Your task to perform on an android device: Go to CNN.com Image 0: 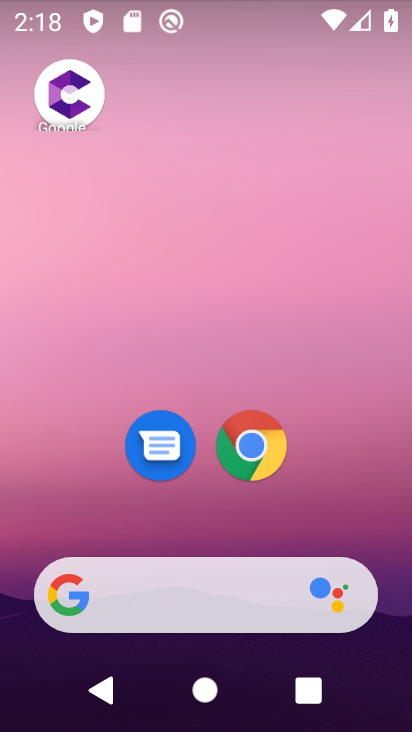
Step 0: click (148, 595)
Your task to perform on an android device: Go to CNN.com Image 1: 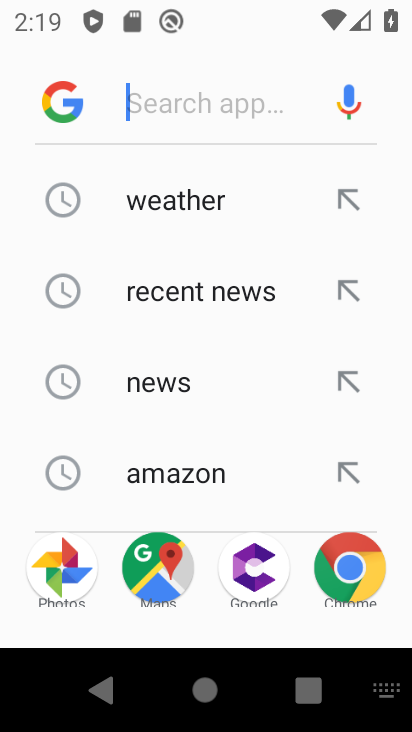
Step 1: type "CNN.com"
Your task to perform on an android device: Go to CNN.com Image 2: 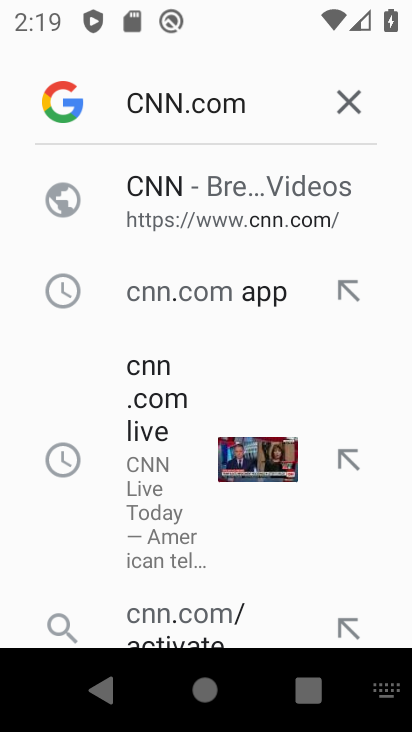
Step 2: click (211, 188)
Your task to perform on an android device: Go to CNN.com Image 3: 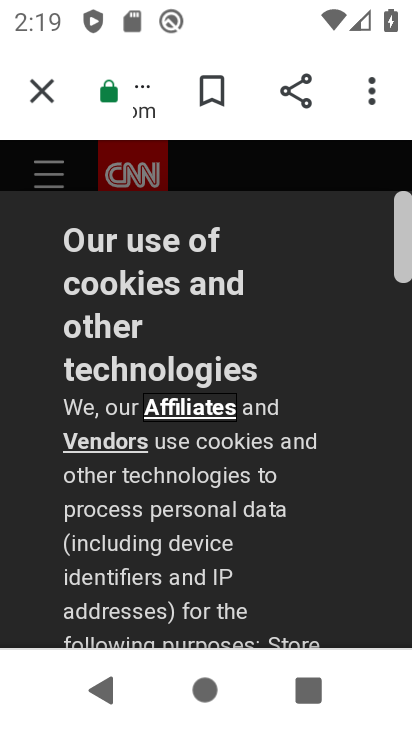
Step 3: drag from (215, 484) to (309, 156)
Your task to perform on an android device: Go to CNN.com Image 4: 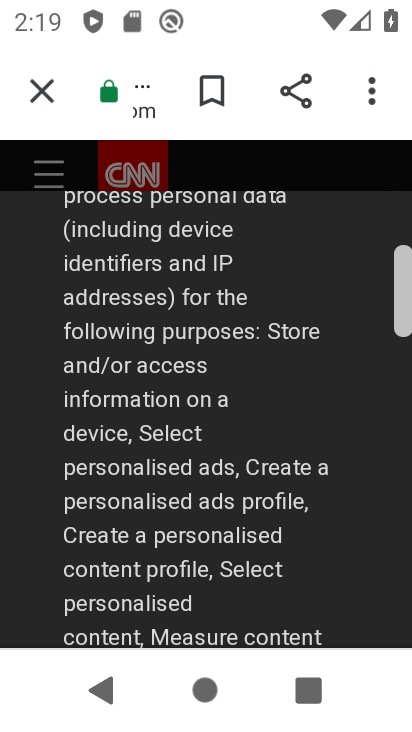
Step 4: drag from (199, 552) to (295, 216)
Your task to perform on an android device: Go to CNN.com Image 5: 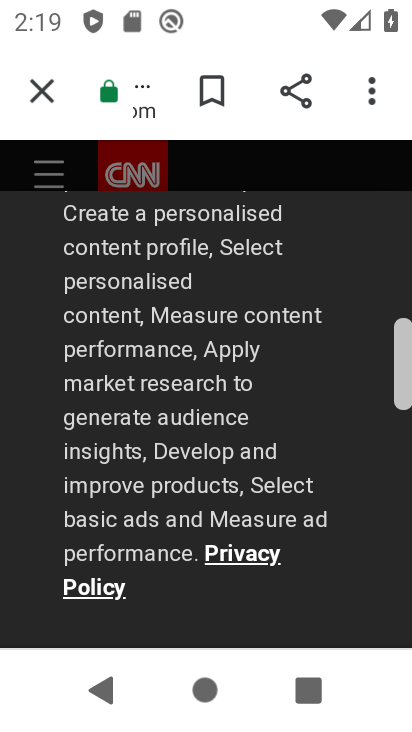
Step 5: click (319, 260)
Your task to perform on an android device: Go to CNN.com Image 6: 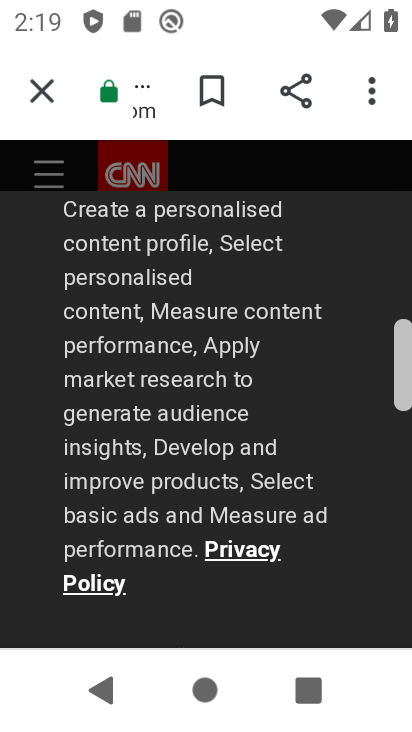
Step 6: drag from (365, 270) to (400, 160)
Your task to perform on an android device: Go to CNN.com Image 7: 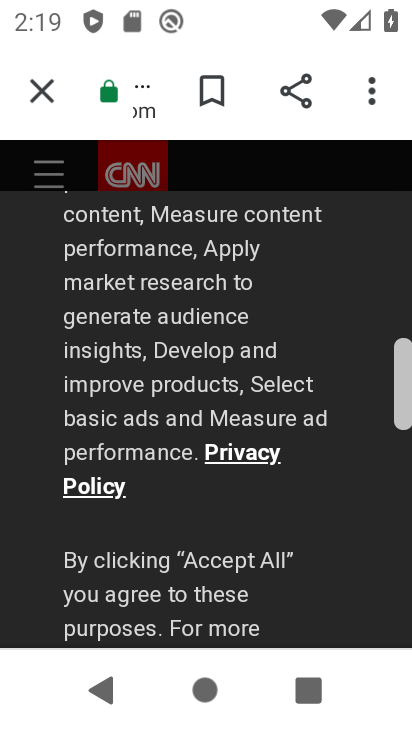
Step 7: drag from (232, 582) to (317, 249)
Your task to perform on an android device: Go to CNN.com Image 8: 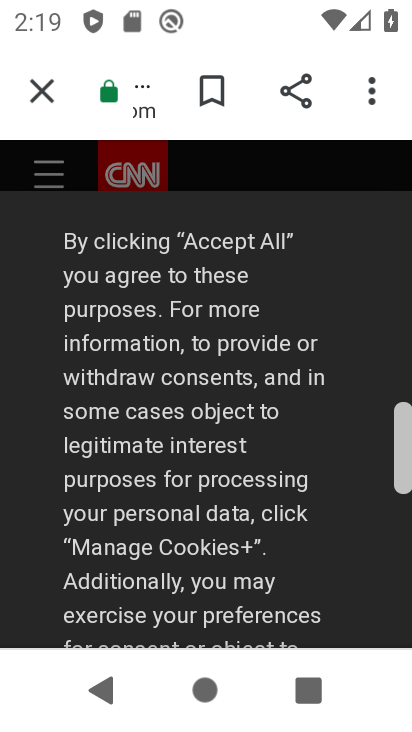
Step 8: drag from (104, 562) to (319, 14)
Your task to perform on an android device: Go to CNN.com Image 9: 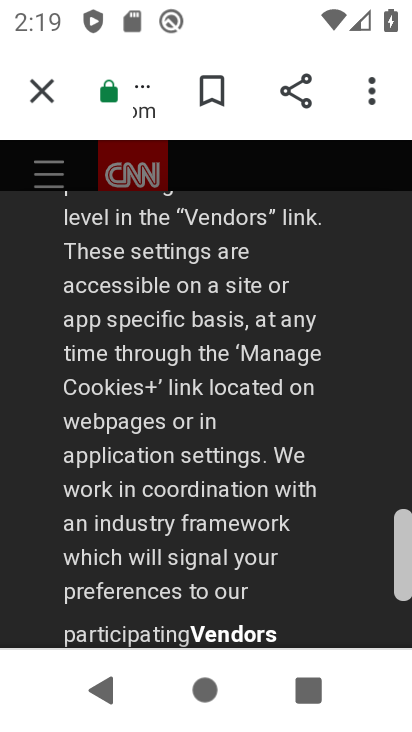
Step 9: drag from (236, 543) to (336, 180)
Your task to perform on an android device: Go to CNN.com Image 10: 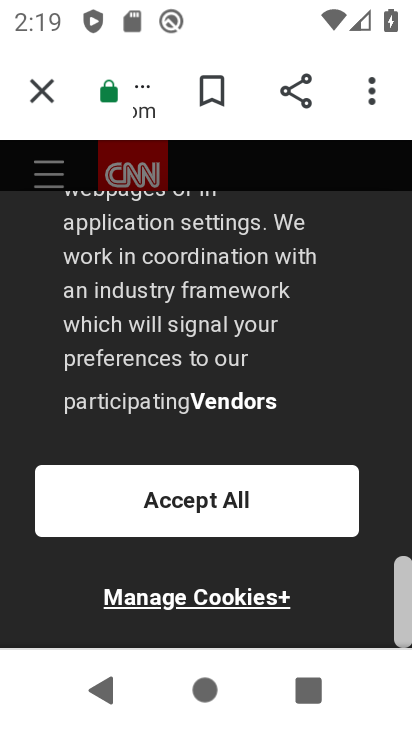
Step 10: click (213, 510)
Your task to perform on an android device: Go to CNN.com Image 11: 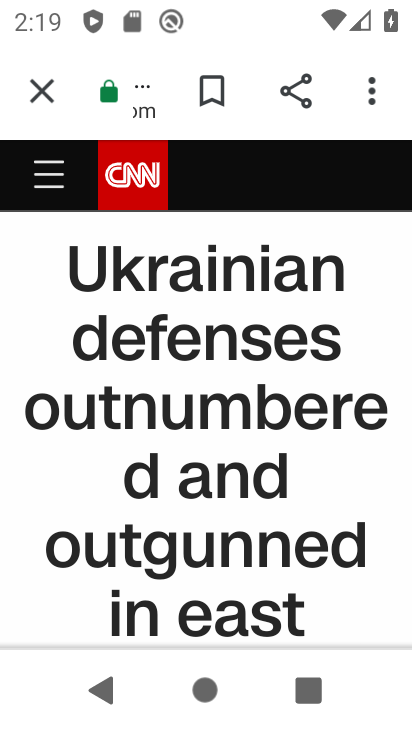
Step 11: task complete